Your task to perform on an android device: turn off javascript in the chrome app Image 0: 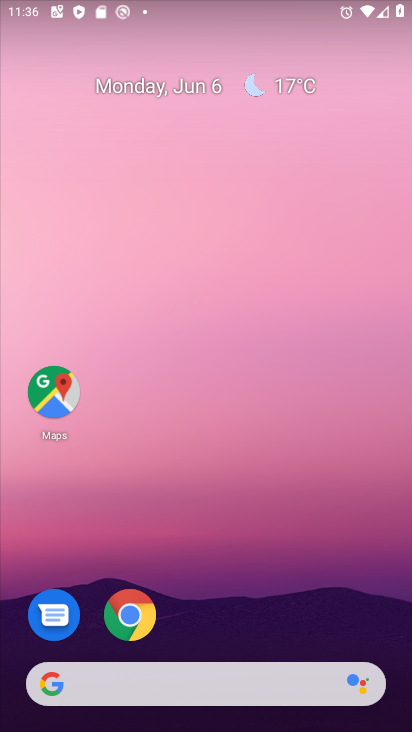
Step 0: press home button
Your task to perform on an android device: turn off javascript in the chrome app Image 1: 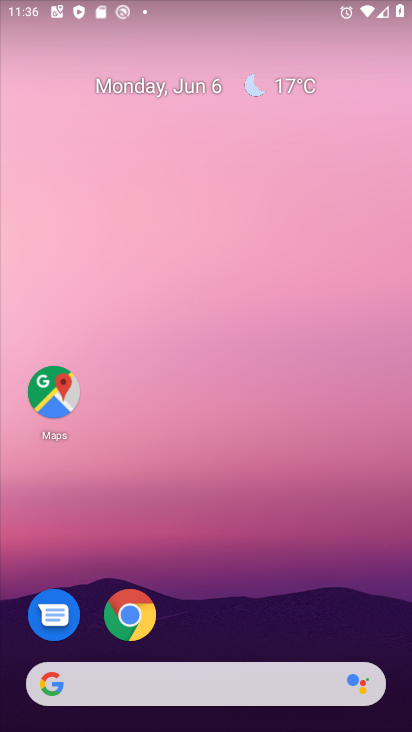
Step 1: click (124, 614)
Your task to perform on an android device: turn off javascript in the chrome app Image 2: 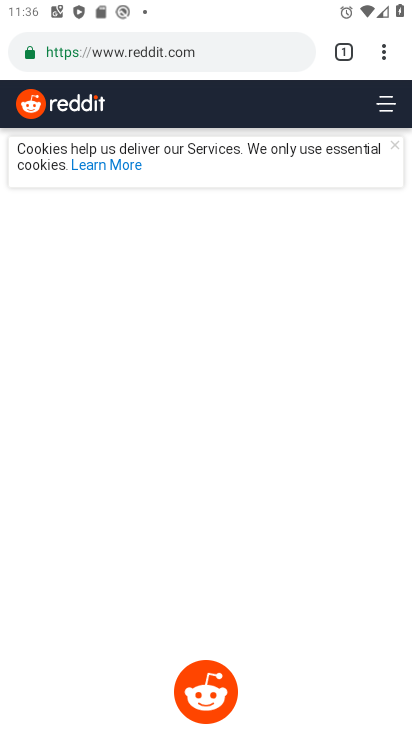
Step 2: click (381, 44)
Your task to perform on an android device: turn off javascript in the chrome app Image 3: 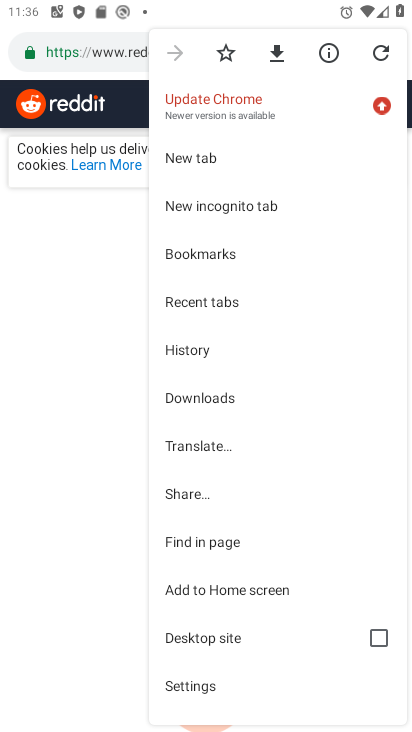
Step 3: click (227, 682)
Your task to perform on an android device: turn off javascript in the chrome app Image 4: 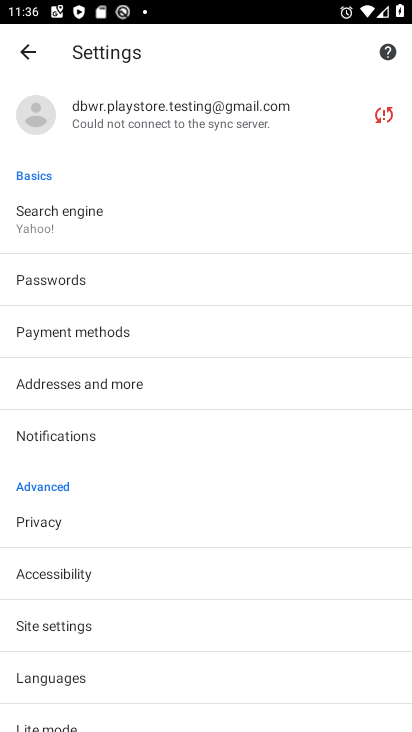
Step 4: click (109, 622)
Your task to perform on an android device: turn off javascript in the chrome app Image 5: 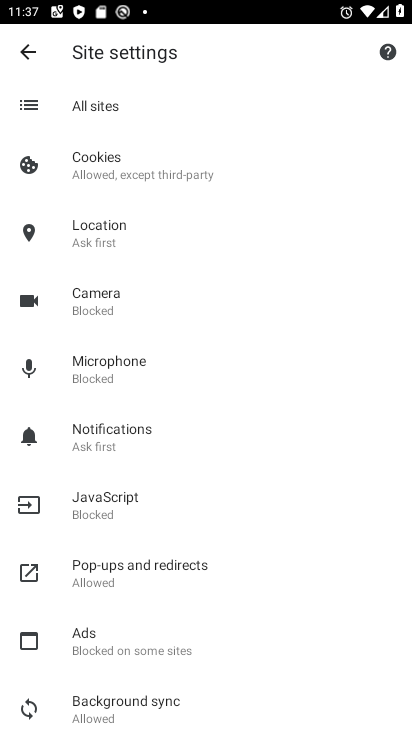
Step 5: click (125, 504)
Your task to perform on an android device: turn off javascript in the chrome app Image 6: 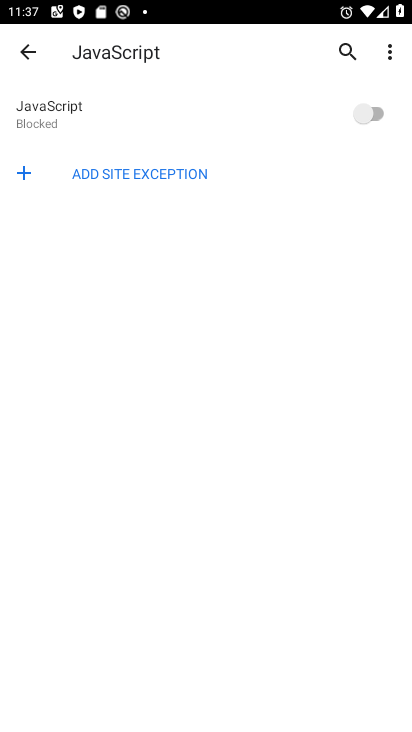
Step 6: task complete